Your task to perform on an android device: change your default location settings in chrome Image 0: 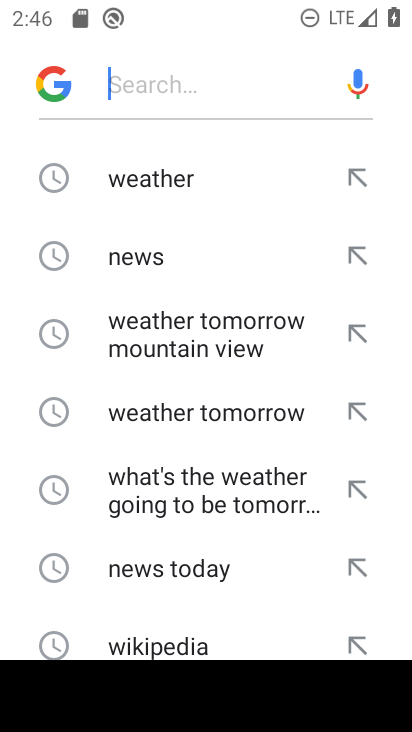
Step 0: press home button
Your task to perform on an android device: change your default location settings in chrome Image 1: 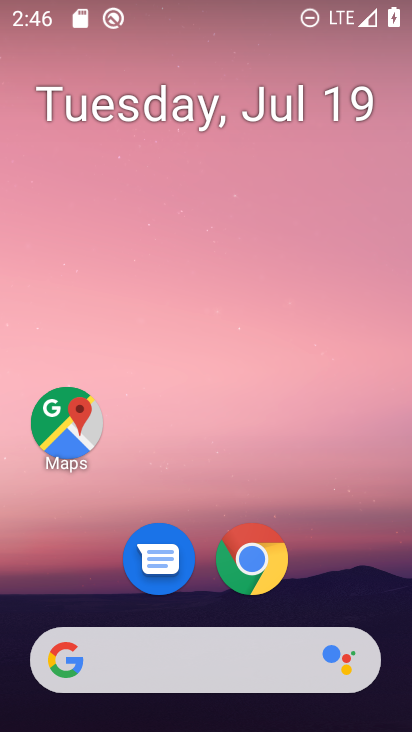
Step 1: drag from (253, 680) to (323, 192)
Your task to perform on an android device: change your default location settings in chrome Image 2: 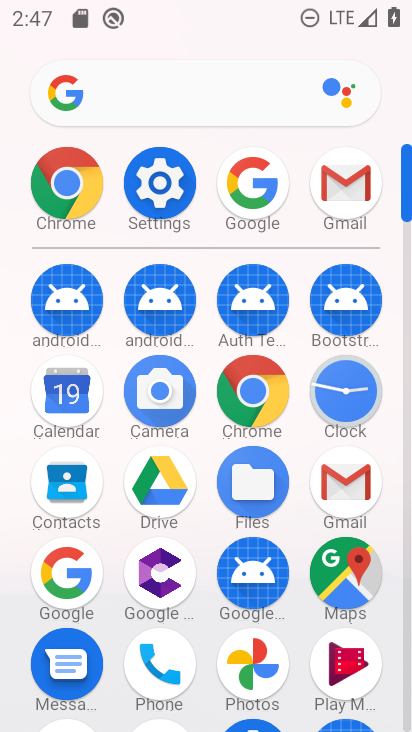
Step 2: click (89, 206)
Your task to perform on an android device: change your default location settings in chrome Image 3: 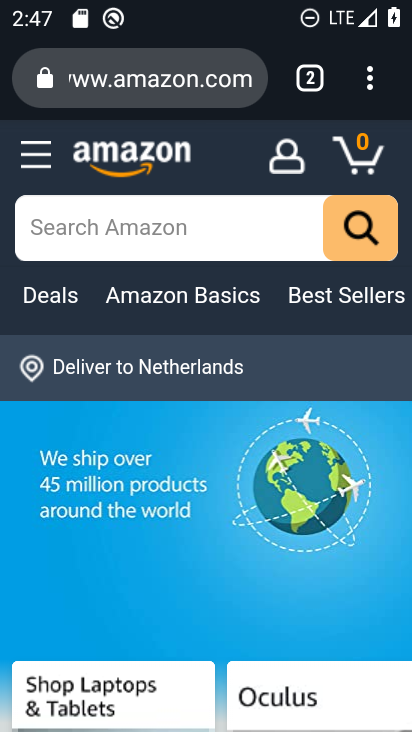
Step 3: click (376, 82)
Your task to perform on an android device: change your default location settings in chrome Image 4: 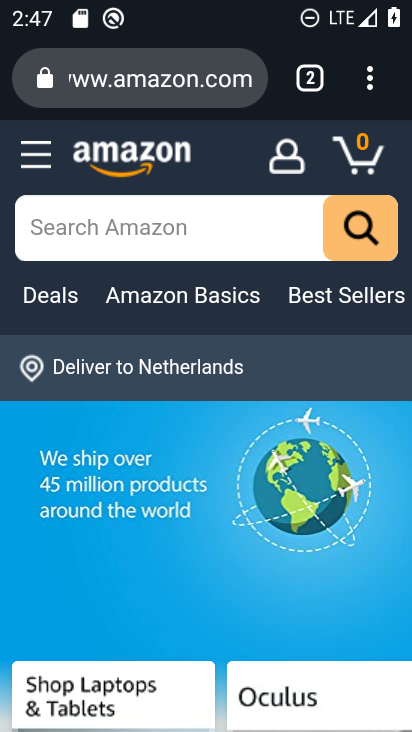
Step 4: click (367, 86)
Your task to perform on an android device: change your default location settings in chrome Image 5: 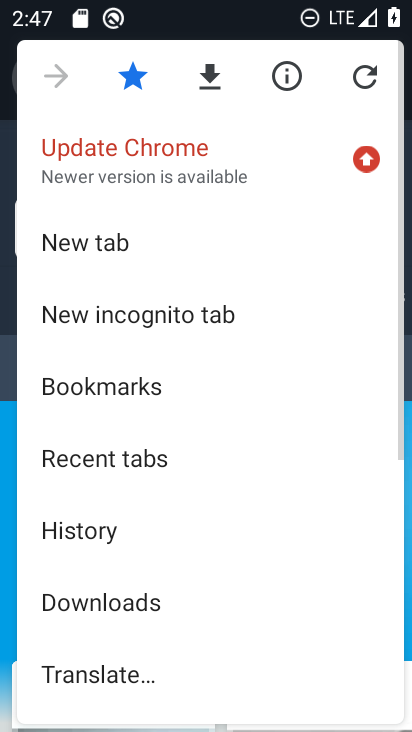
Step 5: drag from (178, 595) to (212, 127)
Your task to perform on an android device: change your default location settings in chrome Image 6: 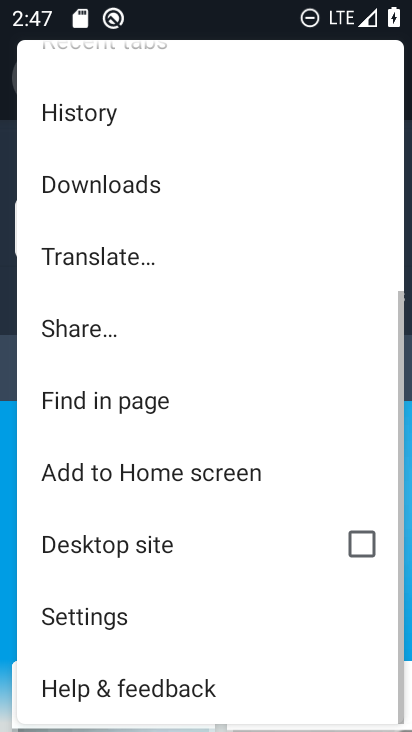
Step 6: click (109, 616)
Your task to perform on an android device: change your default location settings in chrome Image 7: 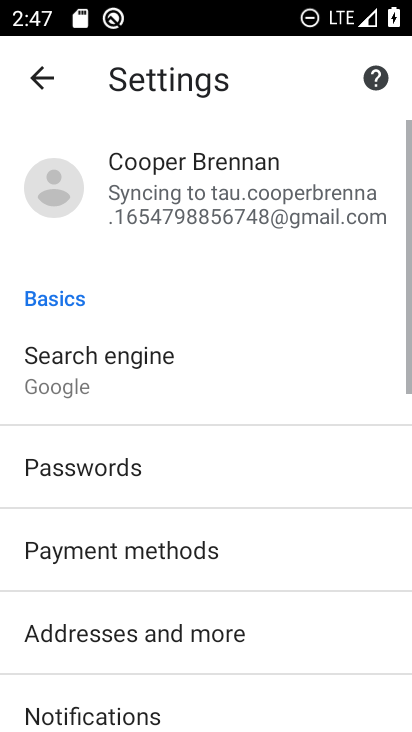
Step 7: drag from (169, 588) to (218, 261)
Your task to perform on an android device: change your default location settings in chrome Image 8: 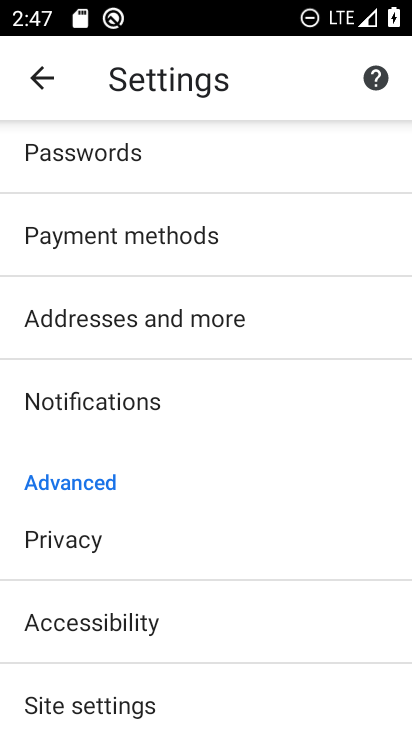
Step 8: drag from (124, 607) to (159, 324)
Your task to perform on an android device: change your default location settings in chrome Image 9: 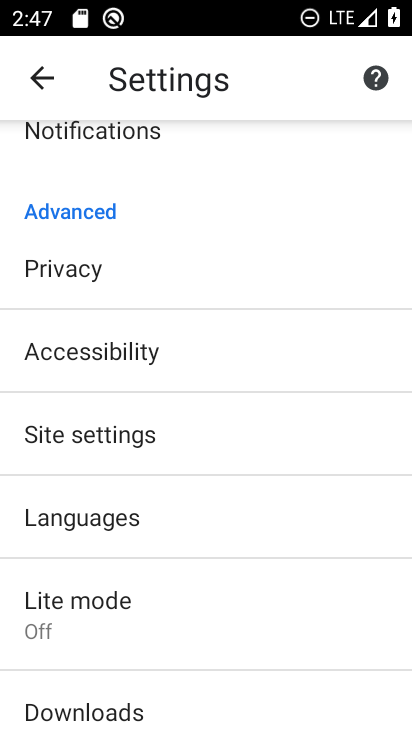
Step 9: drag from (150, 587) to (183, 431)
Your task to perform on an android device: change your default location settings in chrome Image 10: 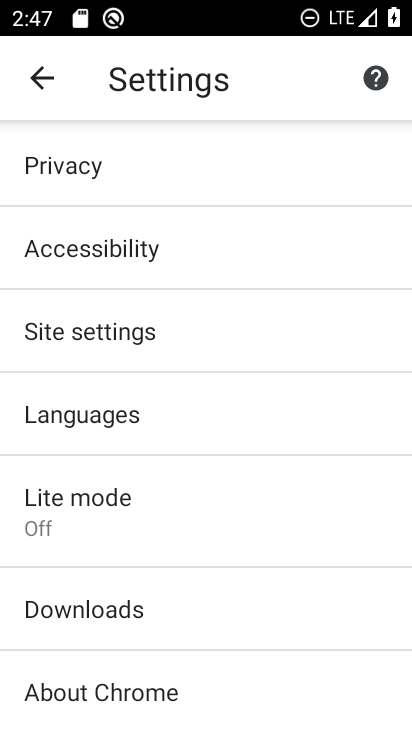
Step 10: click (136, 332)
Your task to perform on an android device: change your default location settings in chrome Image 11: 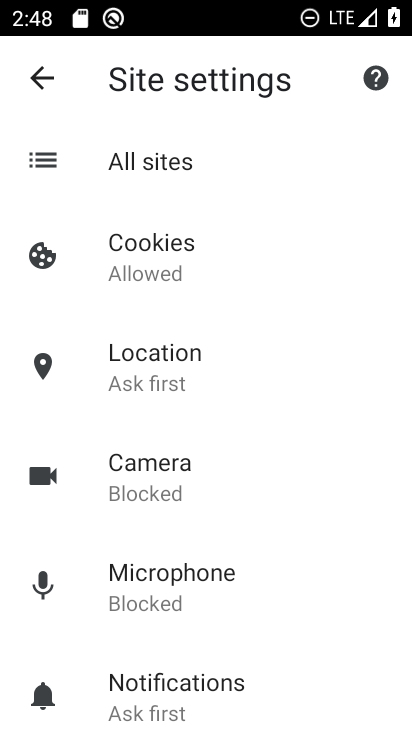
Step 11: drag from (158, 555) to (195, 728)
Your task to perform on an android device: change your default location settings in chrome Image 12: 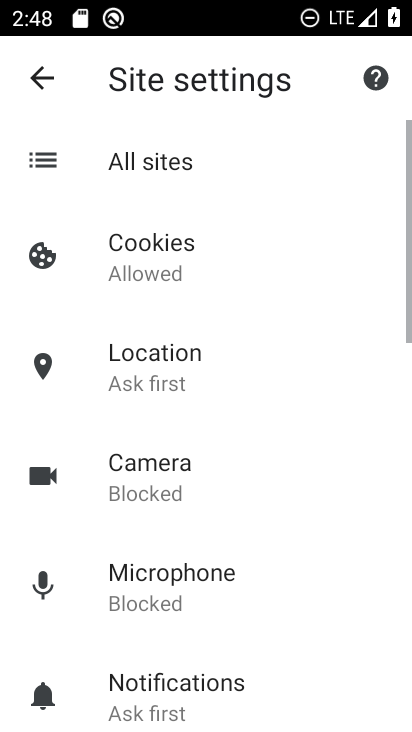
Step 12: click (216, 364)
Your task to perform on an android device: change your default location settings in chrome Image 13: 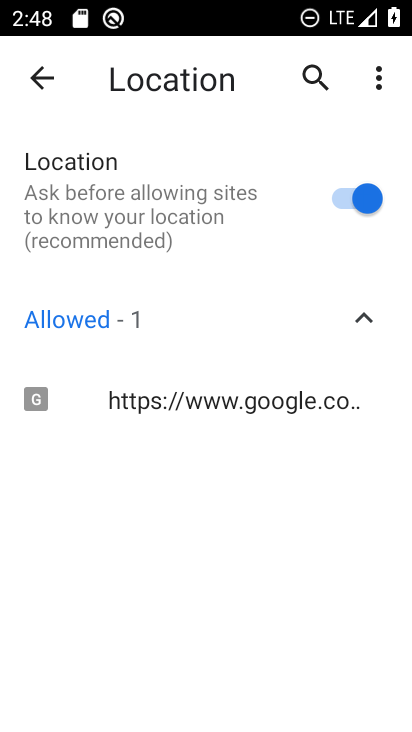
Step 13: click (350, 205)
Your task to perform on an android device: change your default location settings in chrome Image 14: 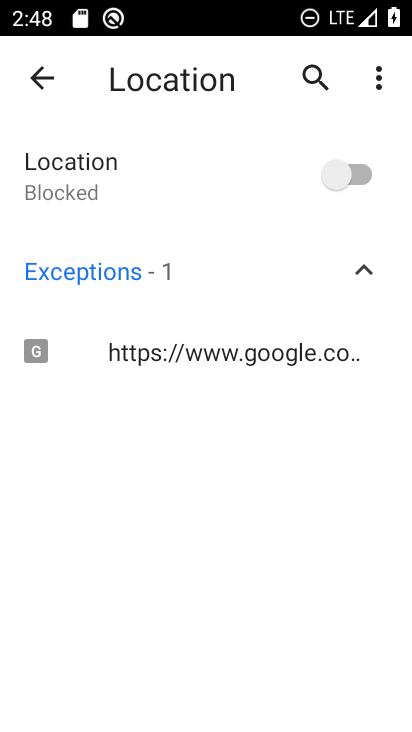
Step 14: task complete